Your task to perform on an android device: turn off data saver in the chrome app Image 0: 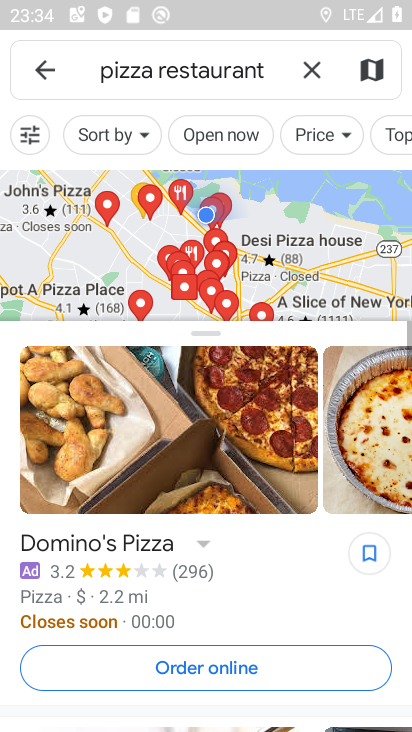
Step 0: press home button
Your task to perform on an android device: turn off data saver in the chrome app Image 1: 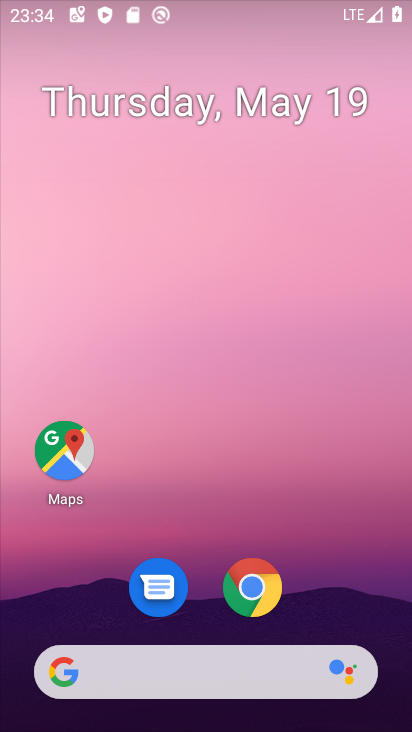
Step 1: drag from (230, 710) to (235, 163)
Your task to perform on an android device: turn off data saver in the chrome app Image 2: 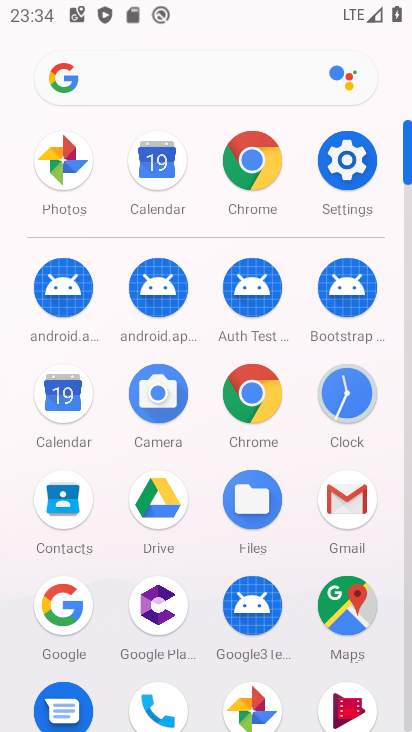
Step 2: click (246, 139)
Your task to perform on an android device: turn off data saver in the chrome app Image 3: 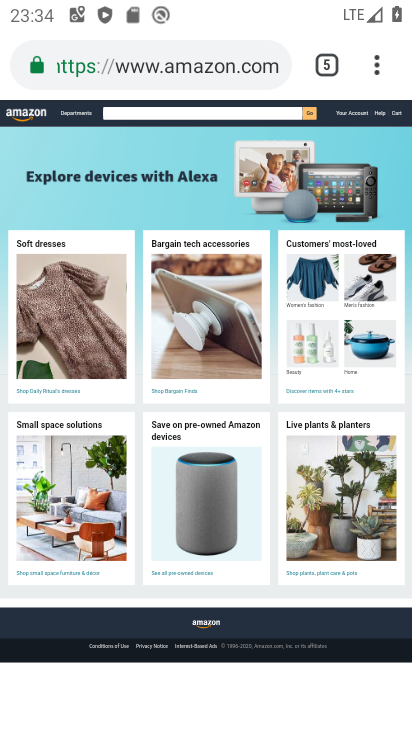
Step 3: click (372, 67)
Your task to perform on an android device: turn off data saver in the chrome app Image 4: 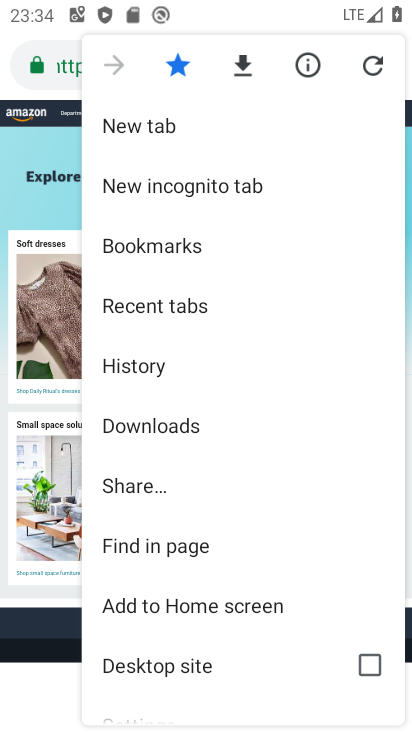
Step 4: drag from (258, 559) to (288, 331)
Your task to perform on an android device: turn off data saver in the chrome app Image 5: 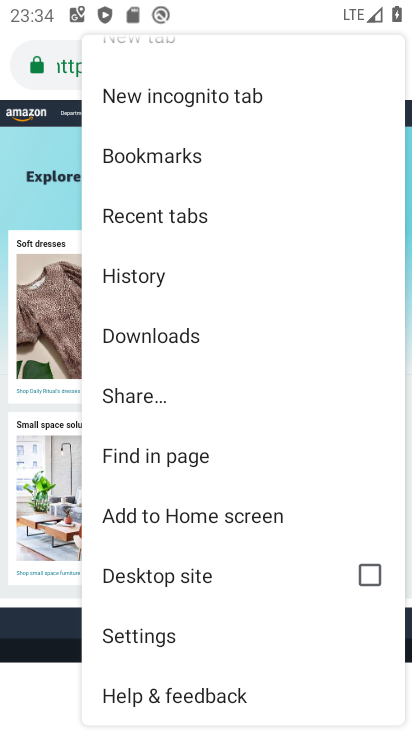
Step 5: click (168, 643)
Your task to perform on an android device: turn off data saver in the chrome app Image 6: 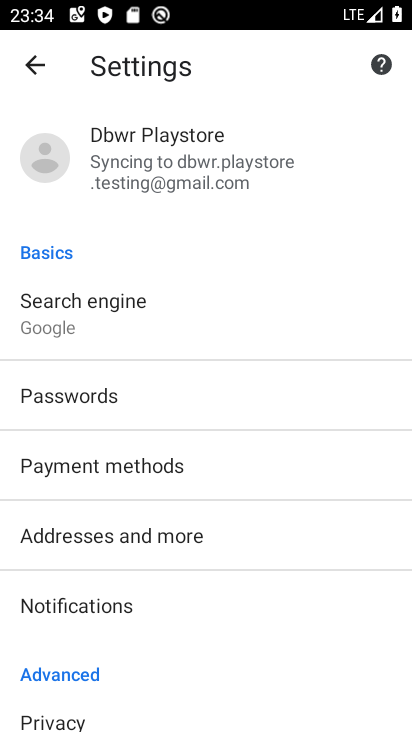
Step 6: drag from (132, 678) to (185, 368)
Your task to perform on an android device: turn off data saver in the chrome app Image 7: 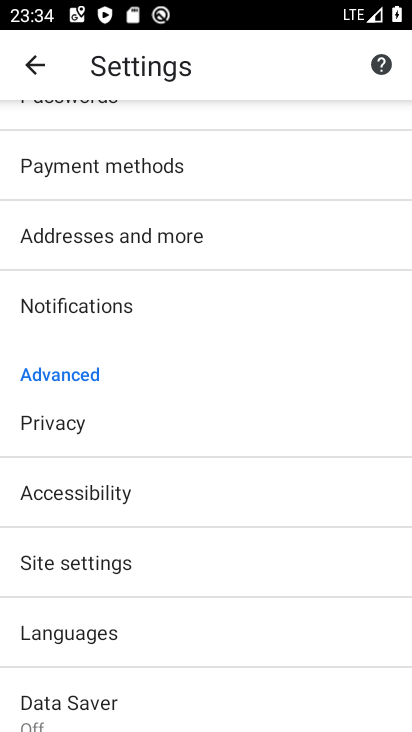
Step 7: click (88, 697)
Your task to perform on an android device: turn off data saver in the chrome app Image 8: 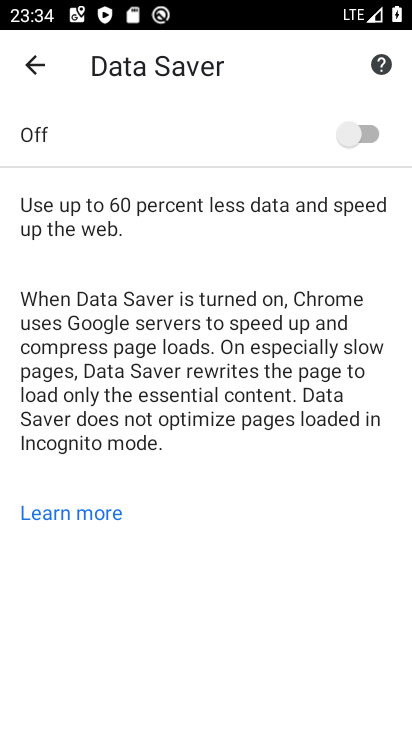
Step 8: click (353, 142)
Your task to perform on an android device: turn off data saver in the chrome app Image 9: 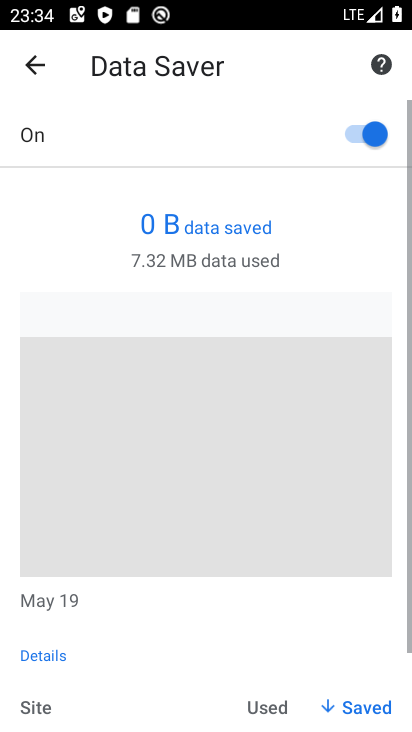
Step 9: click (353, 142)
Your task to perform on an android device: turn off data saver in the chrome app Image 10: 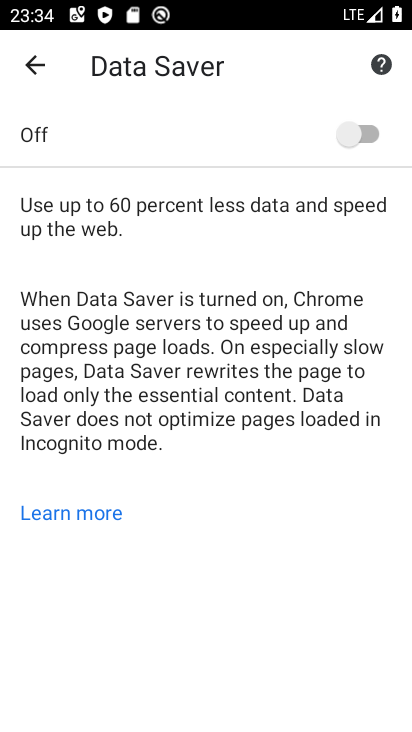
Step 10: task complete